Your task to perform on an android device: Open location settings Image 0: 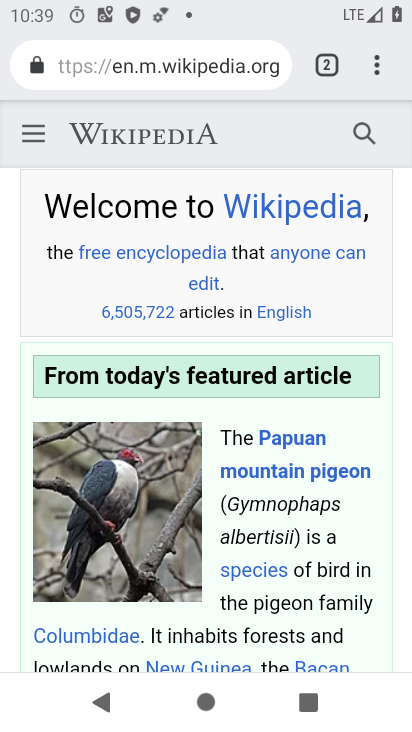
Step 0: press home button
Your task to perform on an android device: Open location settings Image 1: 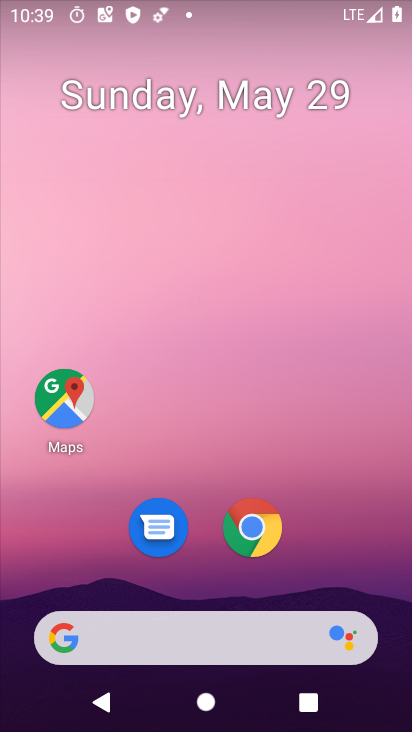
Step 1: drag from (336, 490) to (347, 105)
Your task to perform on an android device: Open location settings Image 2: 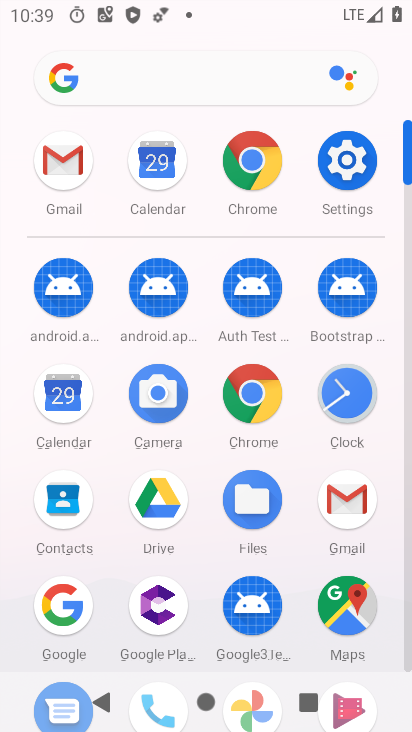
Step 2: click (350, 146)
Your task to perform on an android device: Open location settings Image 3: 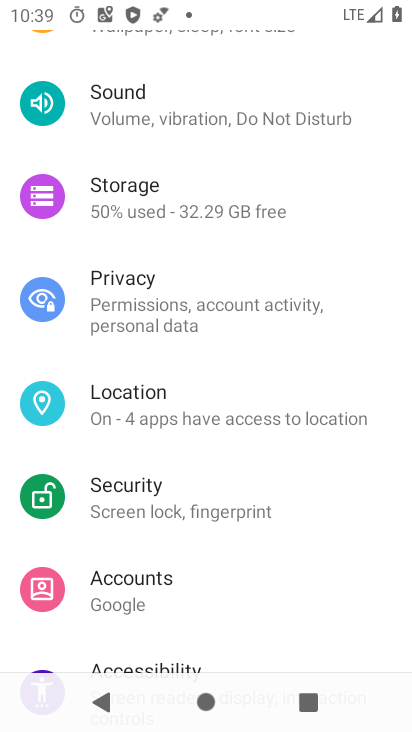
Step 3: click (224, 410)
Your task to perform on an android device: Open location settings Image 4: 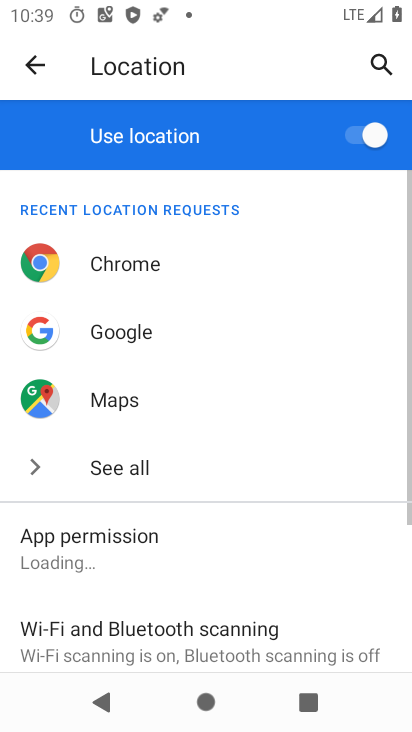
Step 4: task complete